Your task to perform on an android device: set an alarm Image 0: 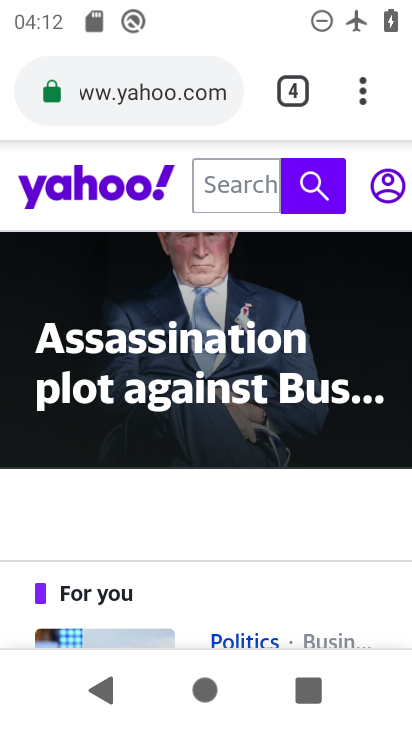
Step 0: press home button
Your task to perform on an android device: set an alarm Image 1: 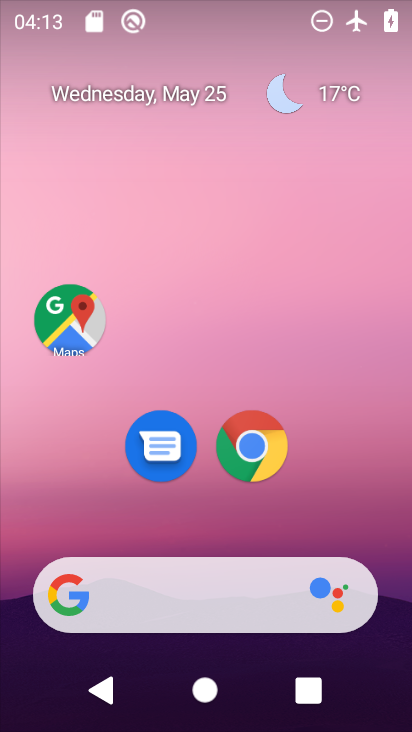
Step 1: drag from (149, 572) to (20, 93)
Your task to perform on an android device: set an alarm Image 2: 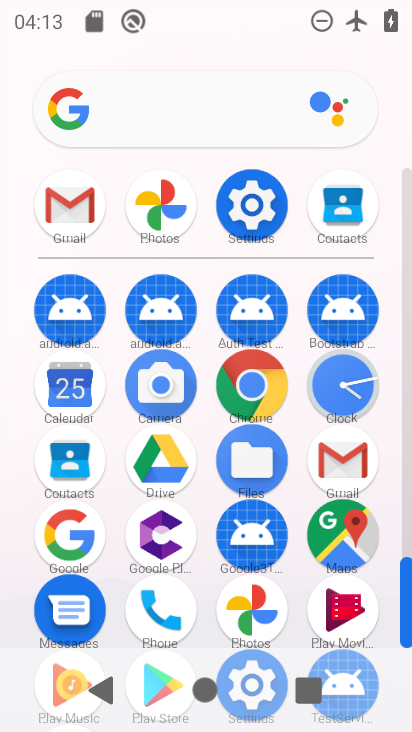
Step 2: click (337, 386)
Your task to perform on an android device: set an alarm Image 3: 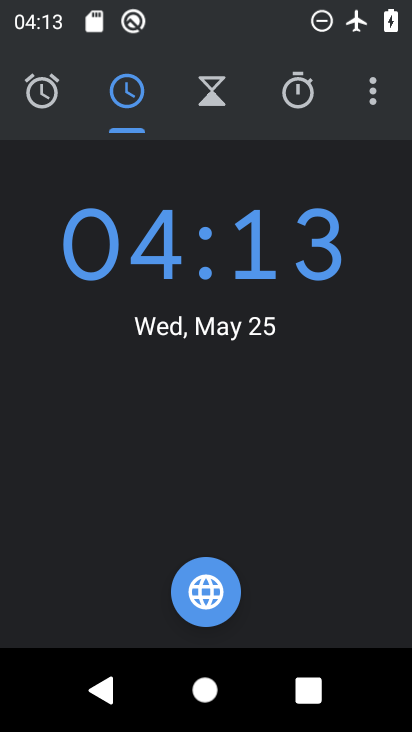
Step 3: click (32, 116)
Your task to perform on an android device: set an alarm Image 4: 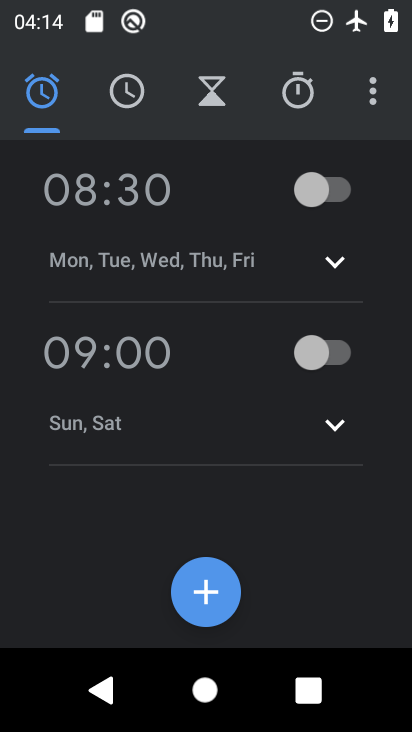
Step 4: click (218, 584)
Your task to perform on an android device: set an alarm Image 5: 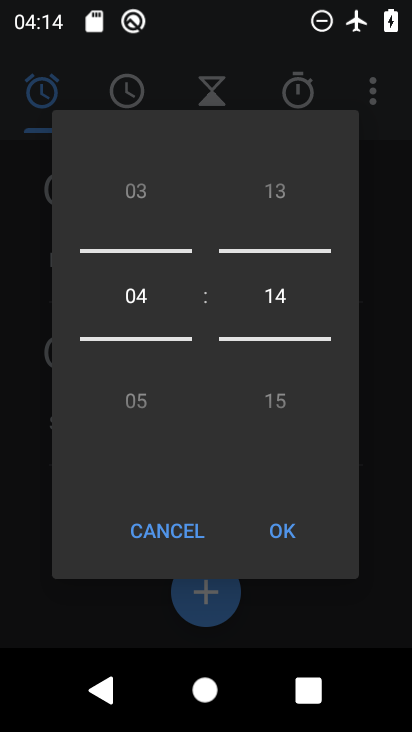
Step 5: drag from (134, 379) to (2, 31)
Your task to perform on an android device: set an alarm Image 6: 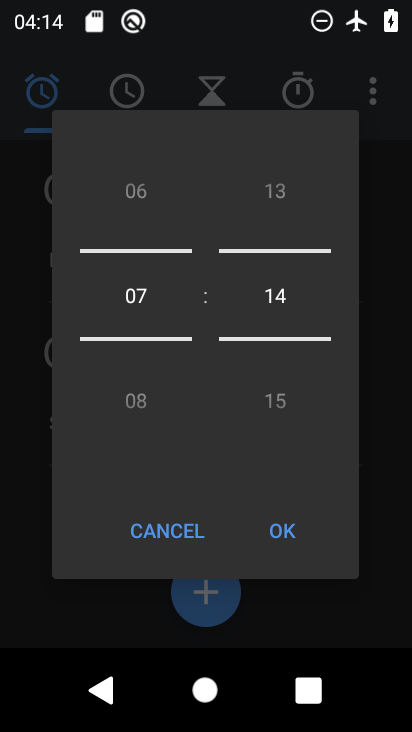
Step 6: click (288, 522)
Your task to perform on an android device: set an alarm Image 7: 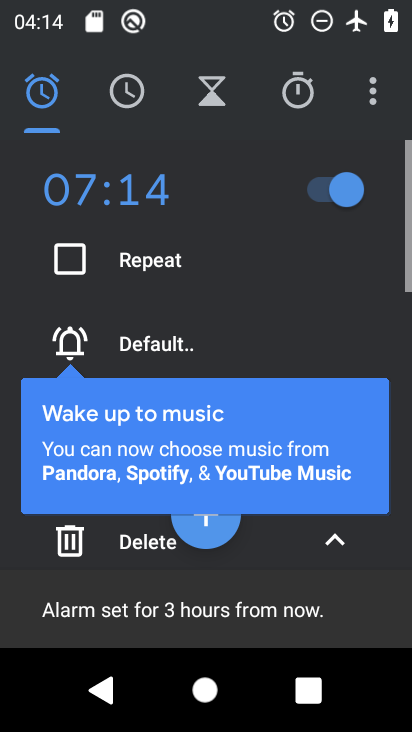
Step 7: task complete